Your task to perform on an android device: Search for Mexican restaurants on Maps Image 0: 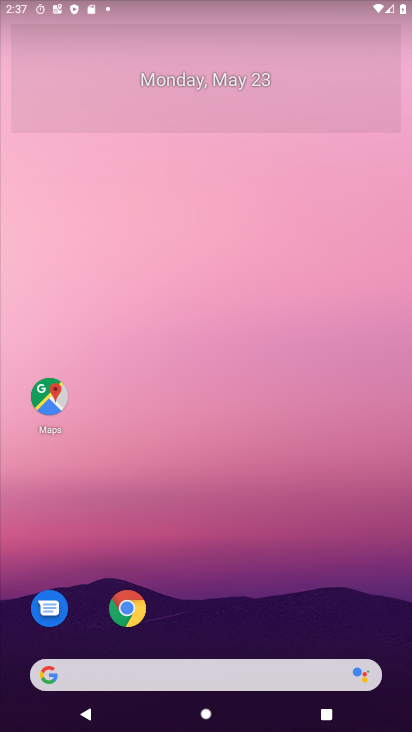
Step 0: drag from (229, 630) to (211, 88)
Your task to perform on an android device: Search for Mexican restaurants on Maps Image 1: 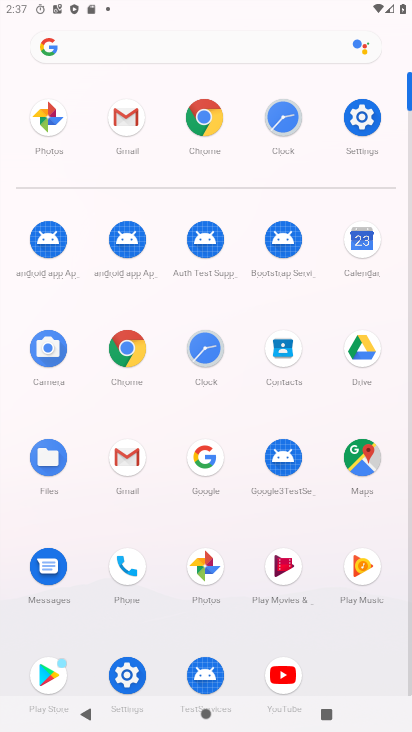
Step 1: click (368, 458)
Your task to perform on an android device: Search for Mexican restaurants on Maps Image 2: 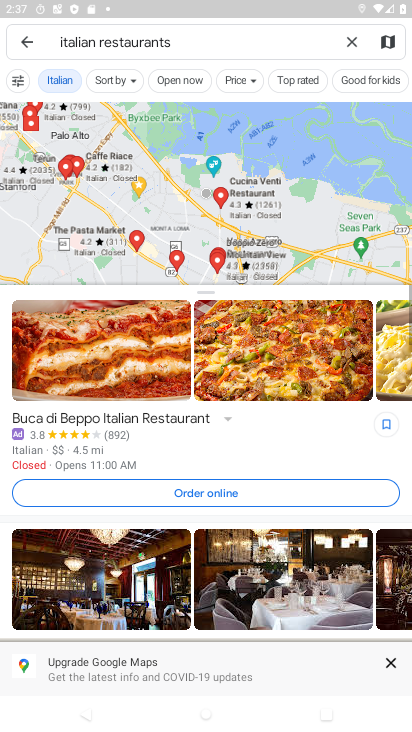
Step 2: click (81, 36)
Your task to perform on an android device: Search for Mexican restaurants on Maps Image 3: 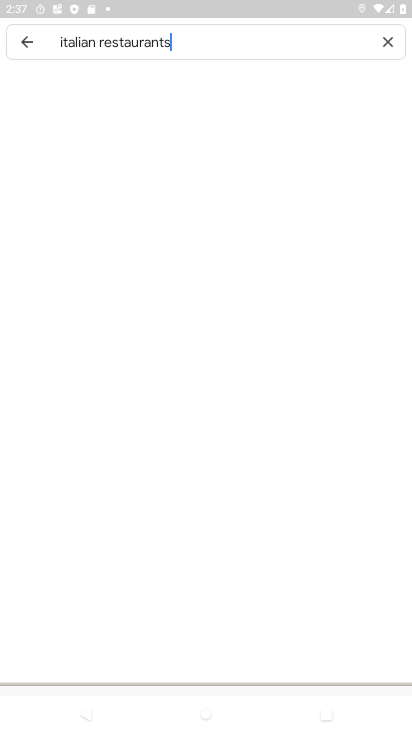
Step 3: click (76, 38)
Your task to perform on an android device: Search for Mexican restaurants on Maps Image 4: 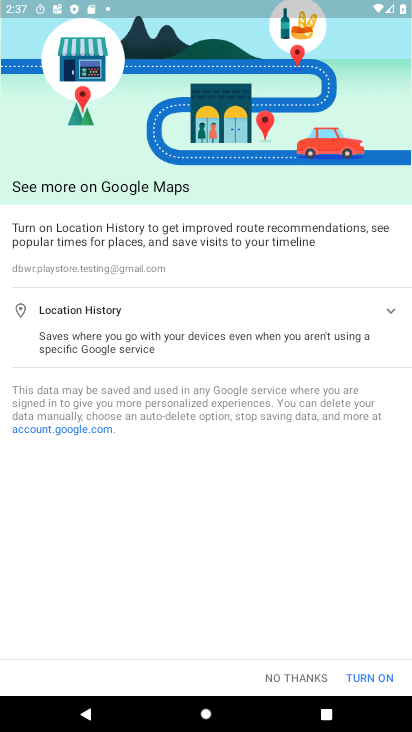
Step 4: click (286, 681)
Your task to perform on an android device: Search for Mexican restaurants on Maps Image 5: 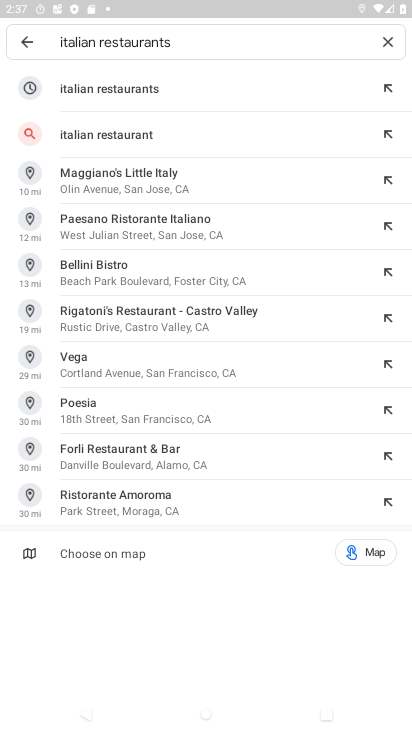
Step 5: click (72, 40)
Your task to perform on an android device: Search for Mexican restaurants on Maps Image 6: 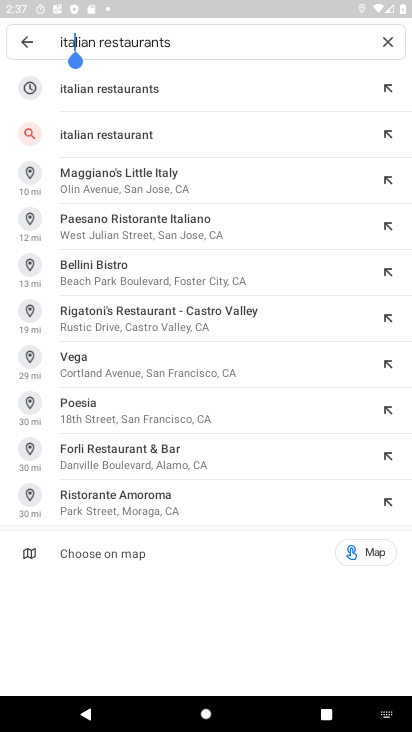
Step 6: click (76, 40)
Your task to perform on an android device: Search for Mexican restaurants on Maps Image 7: 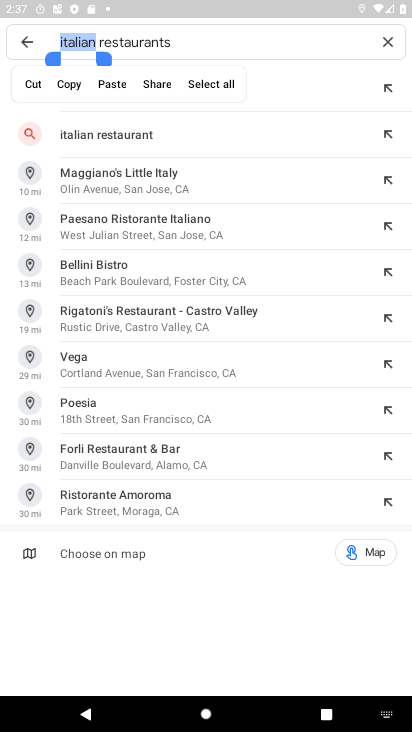
Step 7: type "Mexican"
Your task to perform on an android device: Search for Mexican restaurants on Maps Image 8: 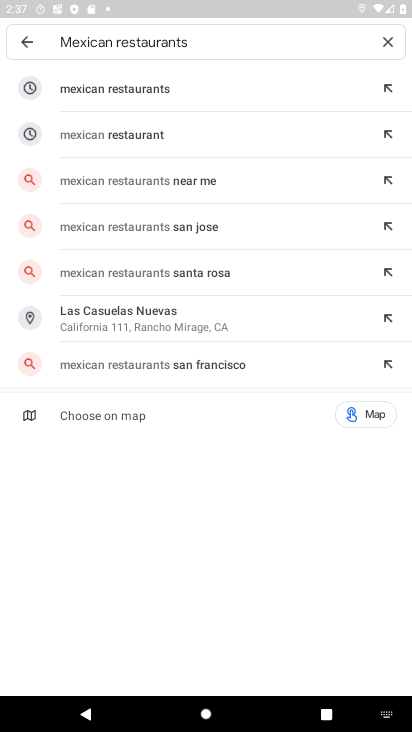
Step 8: click (161, 96)
Your task to perform on an android device: Search for Mexican restaurants on Maps Image 9: 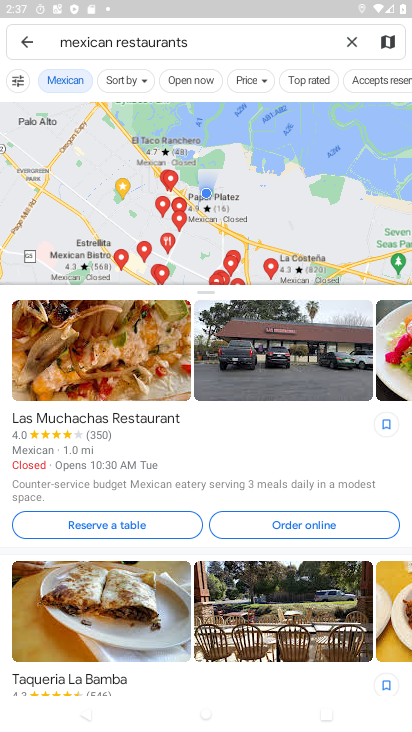
Step 9: task complete